Your task to perform on an android device: turn off picture-in-picture Image 0: 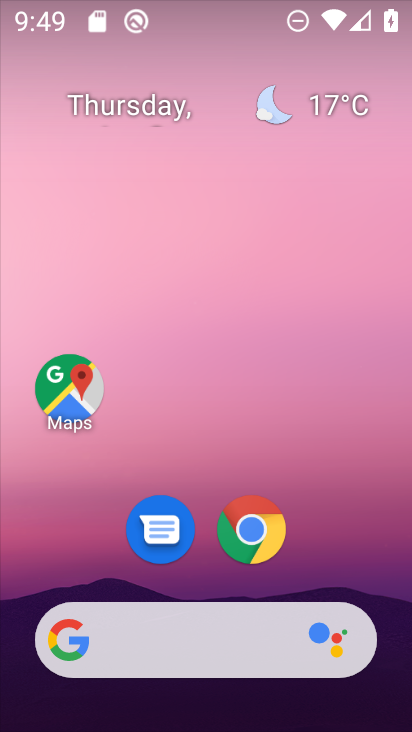
Step 0: click (246, 526)
Your task to perform on an android device: turn off picture-in-picture Image 1: 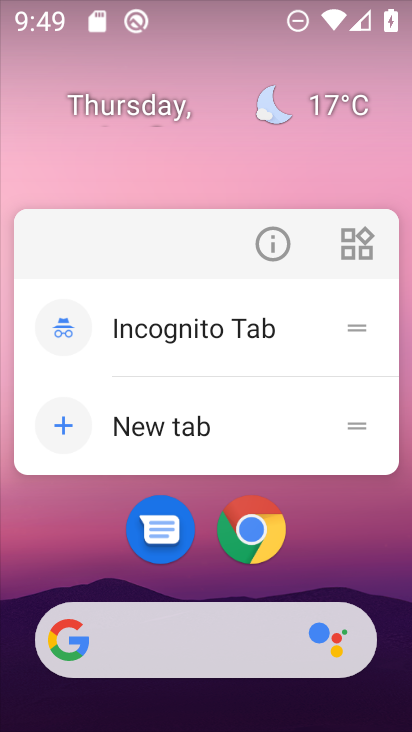
Step 1: click (264, 246)
Your task to perform on an android device: turn off picture-in-picture Image 2: 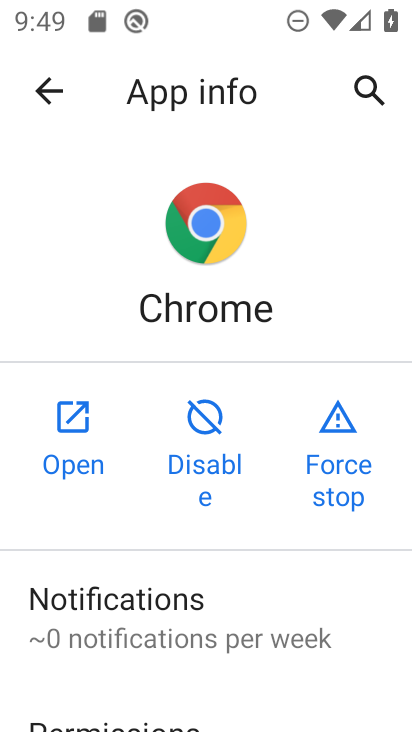
Step 2: drag from (301, 669) to (303, 148)
Your task to perform on an android device: turn off picture-in-picture Image 3: 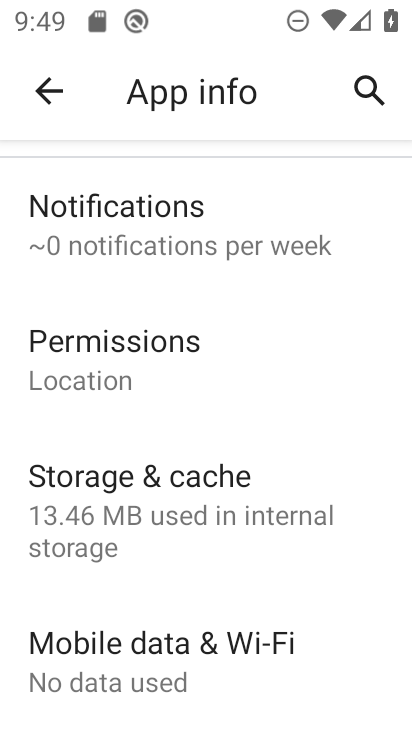
Step 3: drag from (286, 691) to (286, 201)
Your task to perform on an android device: turn off picture-in-picture Image 4: 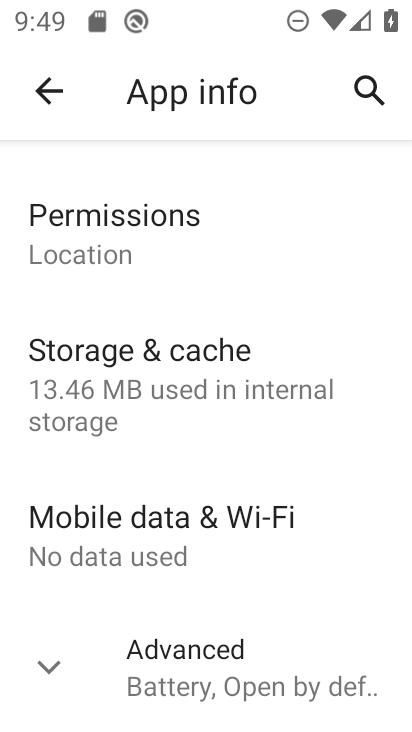
Step 4: click (51, 656)
Your task to perform on an android device: turn off picture-in-picture Image 5: 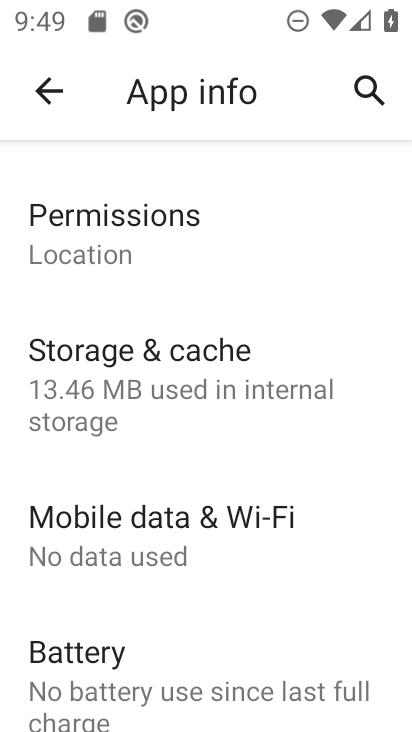
Step 5: drag from (301, 640) to (310, 252)
Your task to perform on an android device: turn off picture-in-picture Image 6: 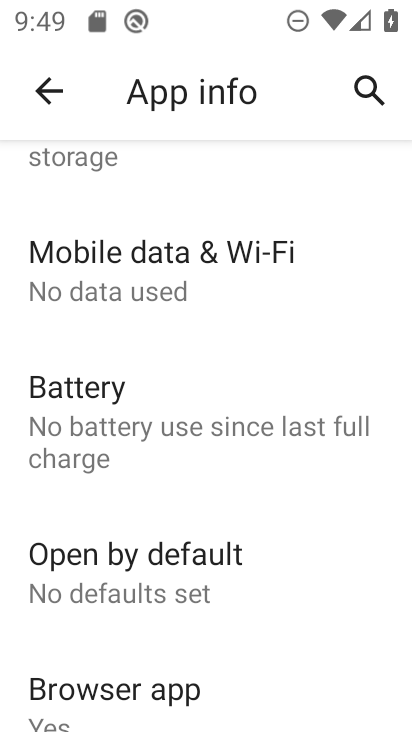
Step 6: drag from (308, 617) to (311, 327)
Your task to perform on an android device: turn off picture-in-picture Image 7: 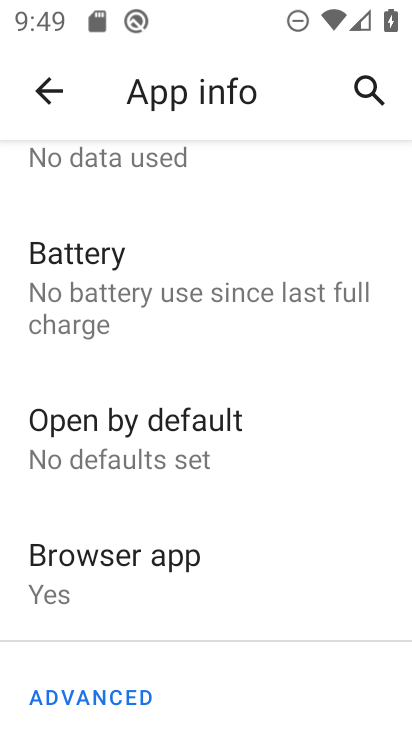
Step 7: drag from (296, 642) to (327, 321)
Your task to perform on an android device: turn off picture-in-picture Image 8: 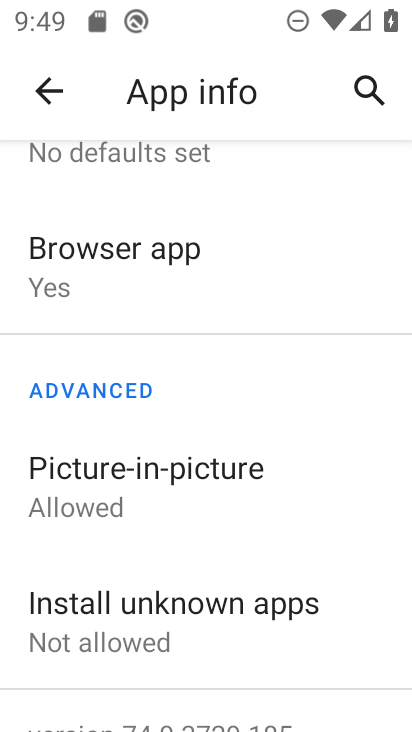
Step 8: click (90, 484)
Your task to perform on an android device: turn off picture-in-picture Image 9: 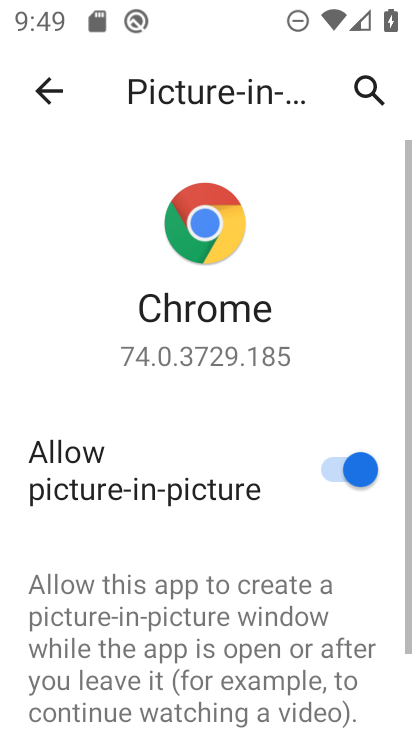
Step 9: click (333, 456)
Your task to perform on an android device: turn off picture-in-picture Image 10: 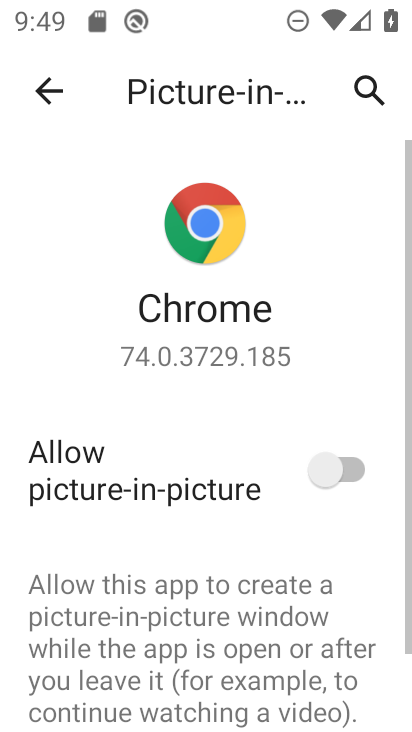
Step 10: task complete